Your task to perform on an android device: turn smart compose on in the gmail app Image 0: 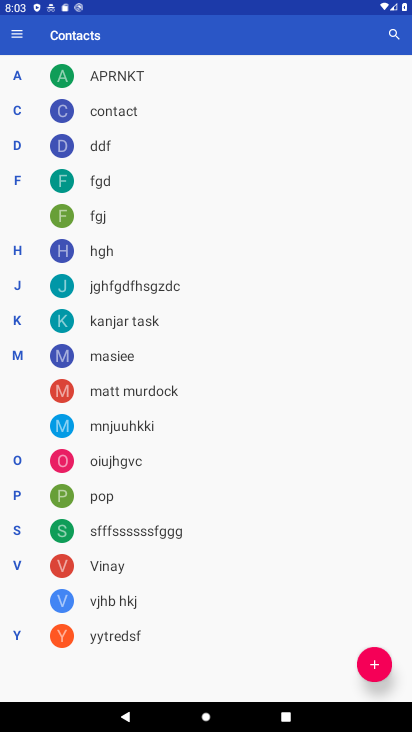
Step 0: press back button
Your task to perform on an android device: turn smart compose on in the gmail app Image 1: 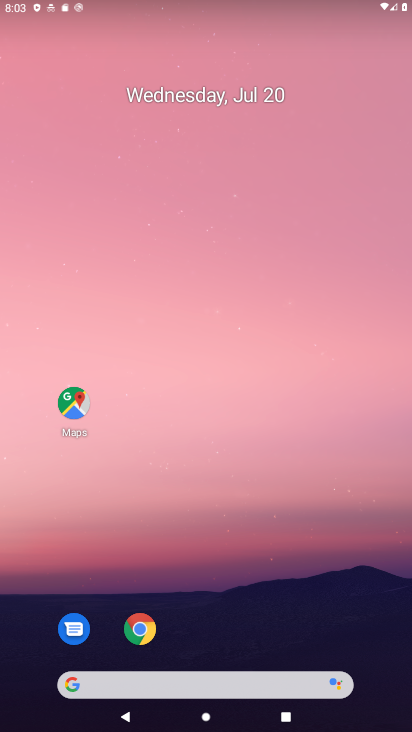
Step 1: drag from (262, 699) to (155, 230)
Your task to perform on an android device: turn smart compose on in the gmail app Image 2: 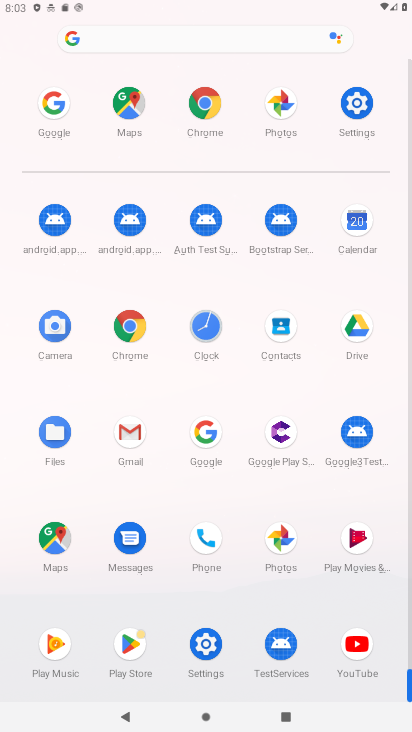
Step 2: click (121, 424)
Your task to perform on an android device: turn smart compose on in the gmail app Image 3: 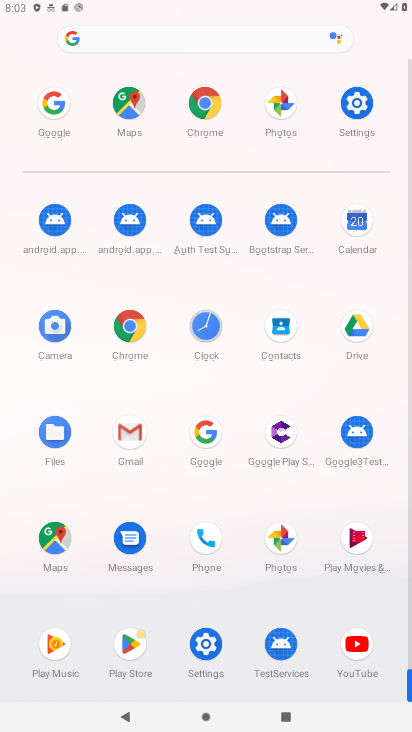
Step 3: click (126, 423)
Your task to perform on an android device: turn smart compose on in the gmail app Image 4: 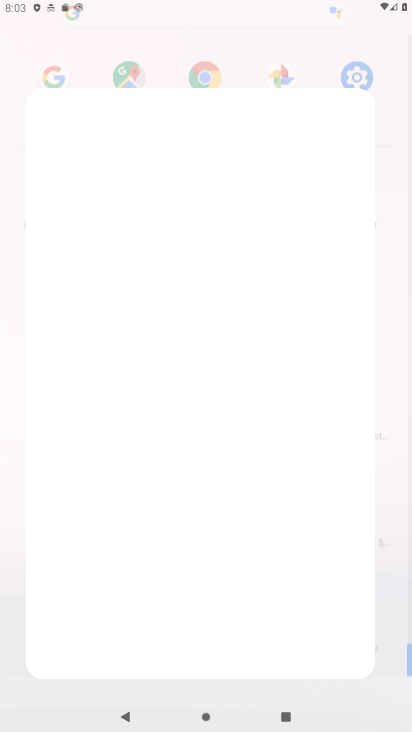
Step 4: click (143, 439)
Your task to perform on an android device: turn smart compose on in the gmail app Image 5: 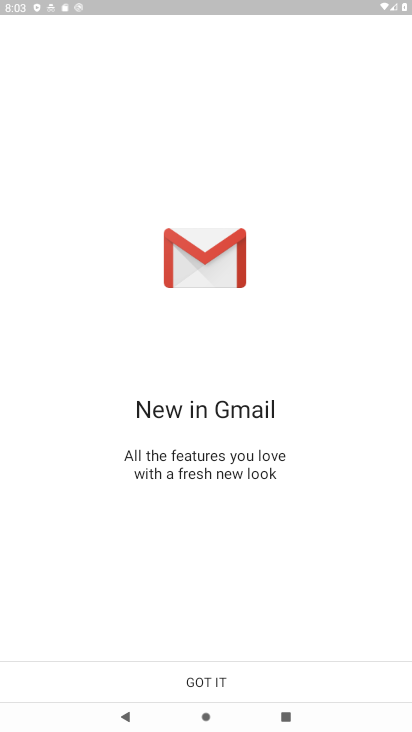
Step 5: click (222, 686)
Your task to perform on an android device: turn smart compose on in the gmail app Image 6: 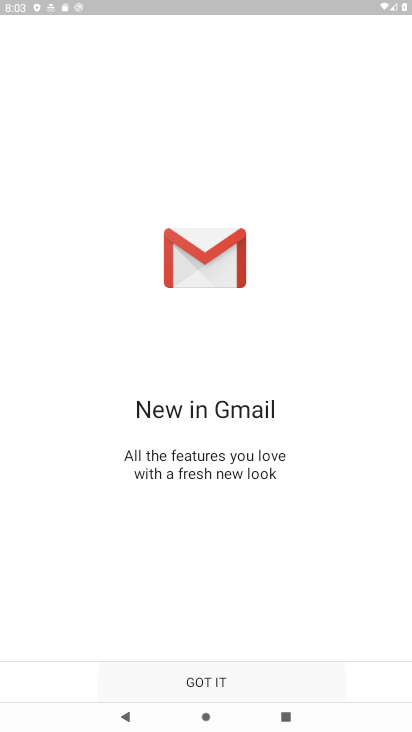
Step 6: click (222, 686)
Your task to perform on an android device: turn smart compose on in the gmail app Image 7: 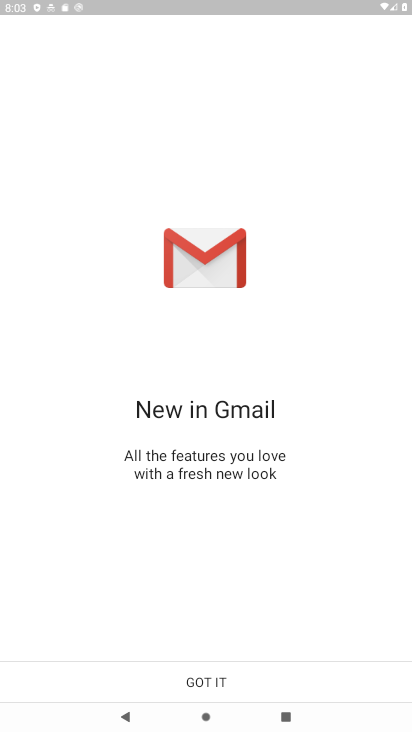
Step 7: click (224, 684)
Your task to perform on an android device: turn smart compose on in the gmail app Image 8: 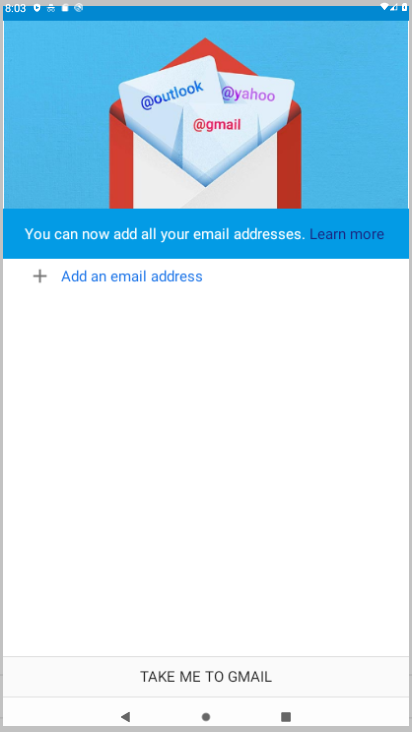
Step 8: click (227, 679)
Your task to perform on an android device: turn smart compose on in the gmail app Image 9: 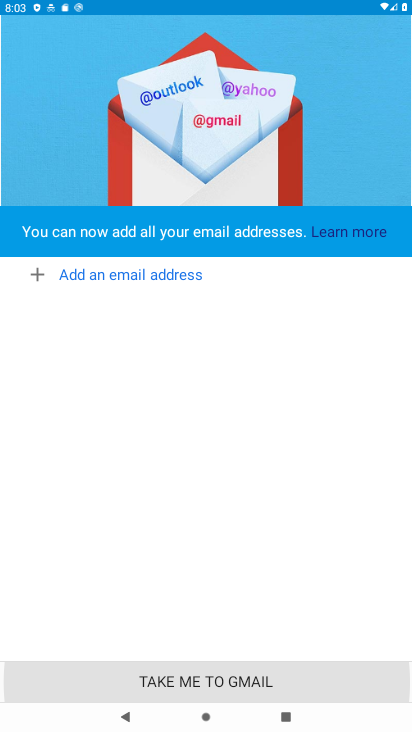
Step 9: click (230, 677)
Your task to perform on an android device: turn smart compose on in the gmail app Image 10: 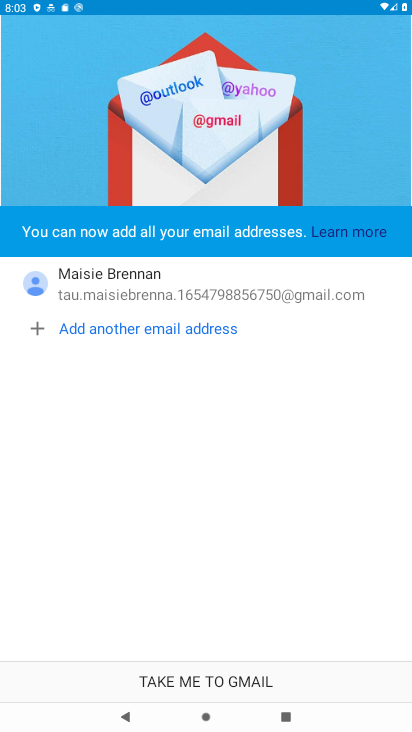
Step 10: click (237, 678)
Your task to perform on an android device: turn smart compose on in the gmail app Image 11: 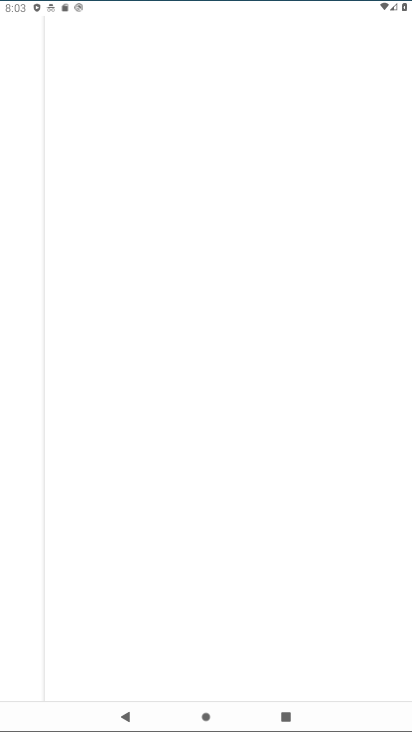
Step 11: click (240, 665)
Your task to perform on an android device: turn smart compose on in the gmail app Image 12: 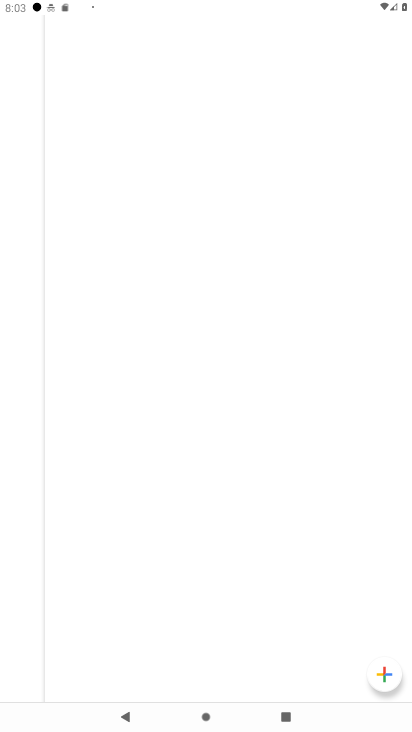
Step 12: click (239, 670)
Your task to perform on an android device: turn smart compose on in the gmail app Image 13: 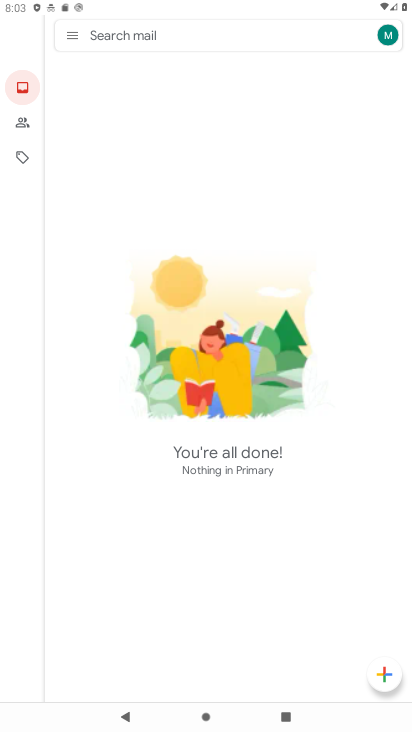
Step 13: drag from (77, 41) to (78, 202)
Your task to perform on an android device: turn smart compose on in the gmail app Image 14: 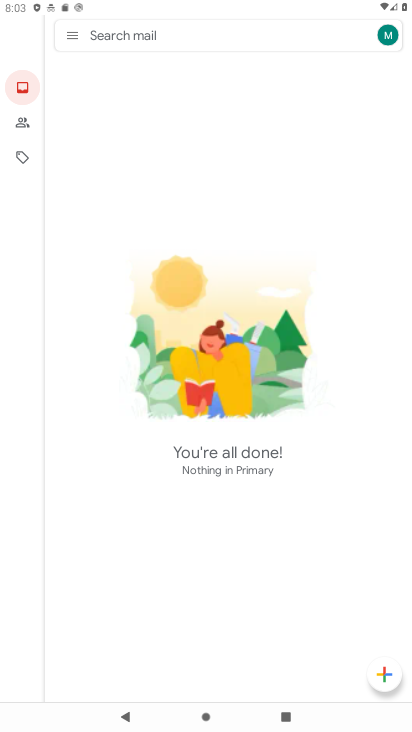
Step 14: click (73, 33)
Your task to perform on an android device: turn smart compose on in the gmail app Image 15: 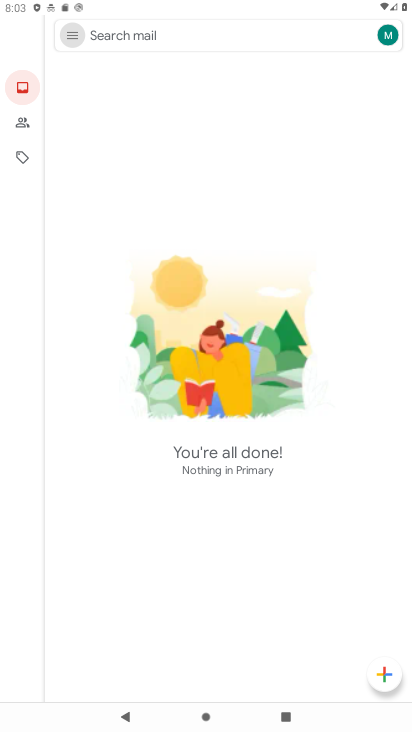
Step 15: click (73, 34)
Your task to perform on an android device: turn smart compose on in the gmail app Image 16: 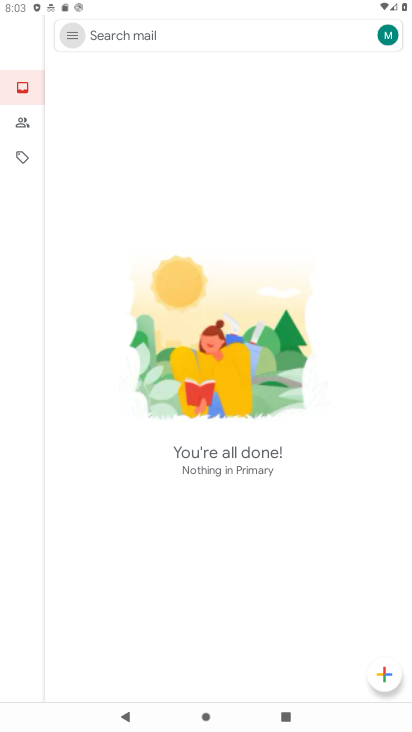
Step 16: click (73, 36)
Your task to perform on an android device: turn smart compose on in the gmail app Image 17: 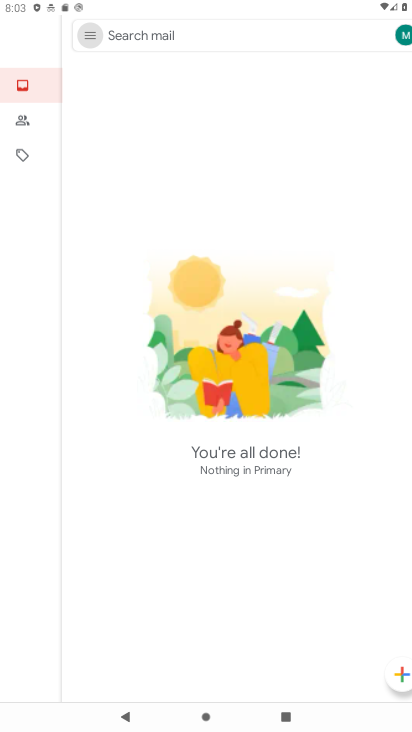
Step 17: click (73, 37)
Your task to perform on an android device: turn smart compose on in the gmail app Image 18: 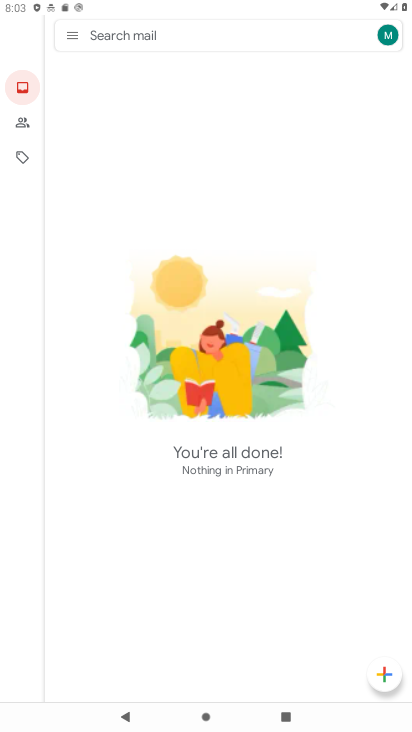
Step 18: click (76, 37)
Your task to perform on an android device: turn smart compose on in the gmail app Image 19: 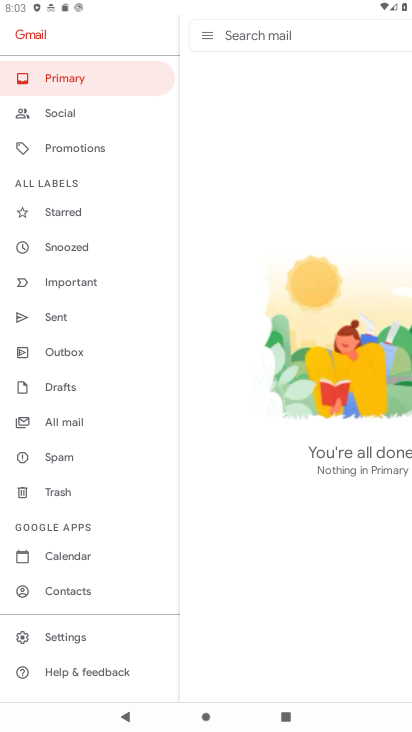
Step 19: drag from (76, 37) to (72, 634)
Your task to perform on an android device: turn smart compose on in the gmail app Image 20: 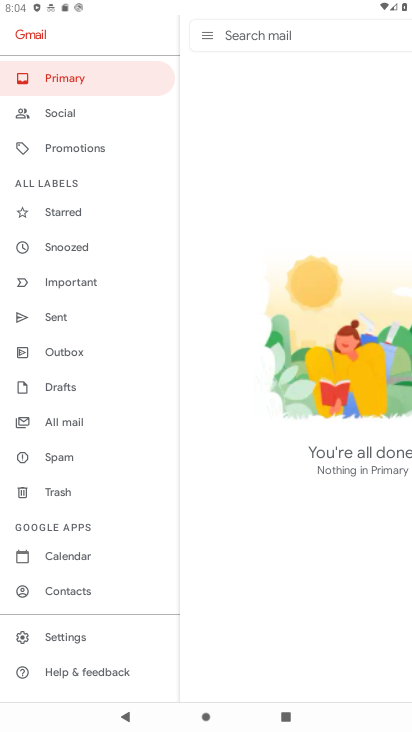
Step 20: click (73, 633)
Your task to perform on an android device: turn smart compose on in the gmail app Image 21: 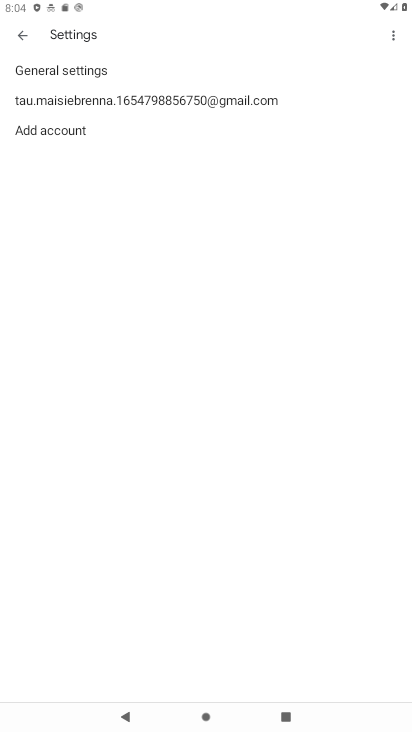
Step 21: click (108, 98)
Your task to perform on an android device: turn smart compose on in the gmail app Image 22: 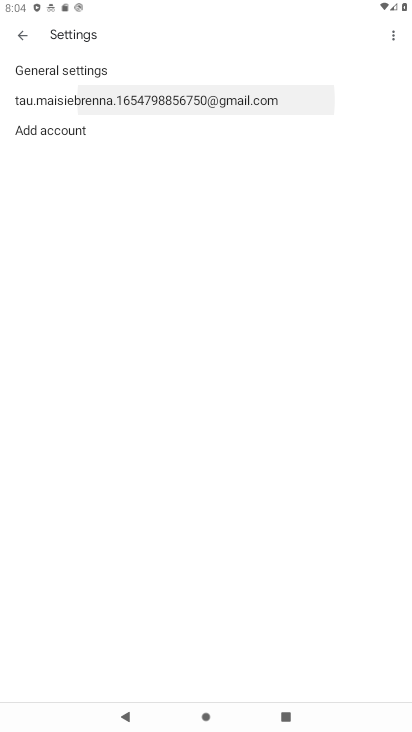
Step 22: click (115, 99)
Your task to perform on an android device: turn smart compose on in the gmail app Image 23: 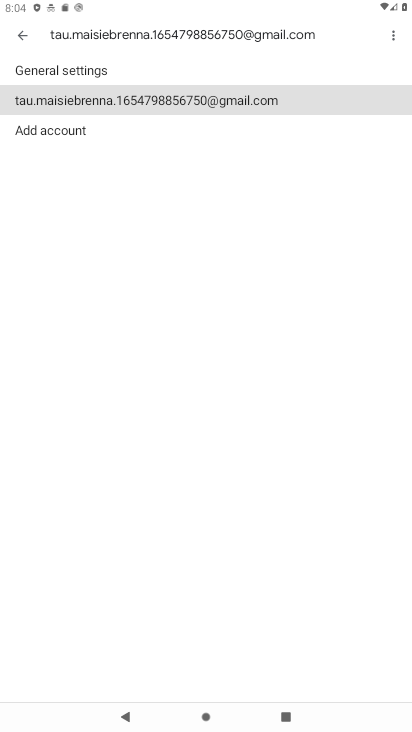
Step 23: click (133, 97)
Your task to perform on an android device: turn smart compose on in the gmail app Image 24: 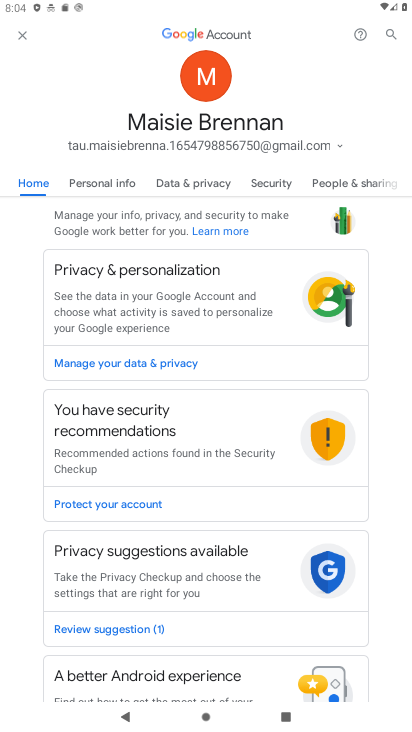
Step 24: click (28, 37)
Your task to perform on an android device: turn smart compose on in the gmail app Image 25: 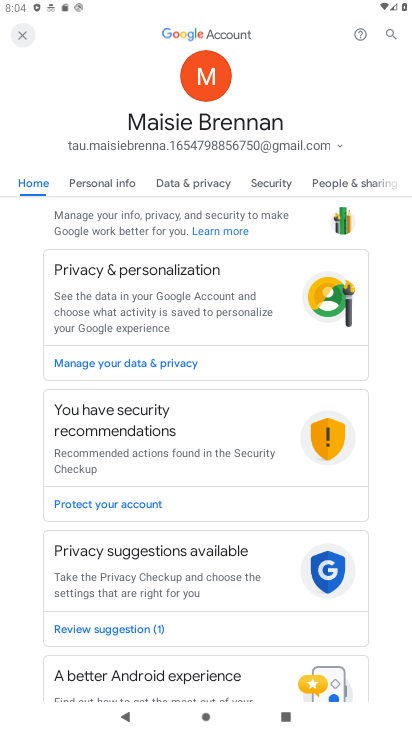
Step 25: click (27, 36)
Your task to perform on an android device: turn smart compose on in the gmail app Image 26: 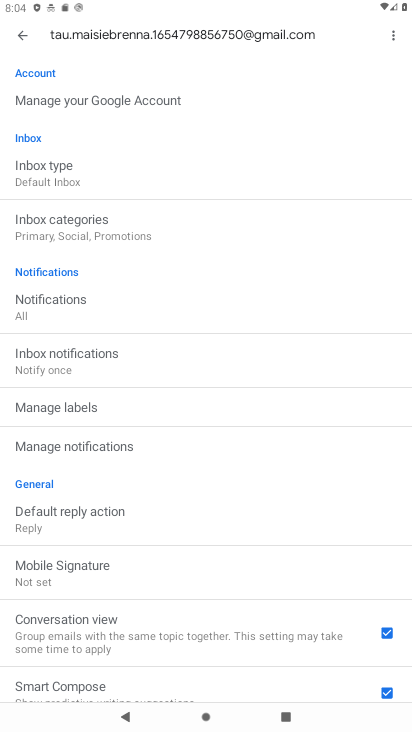
Step 26: task complete